Your task to perform on an android device: turn notification dots off Image 0: 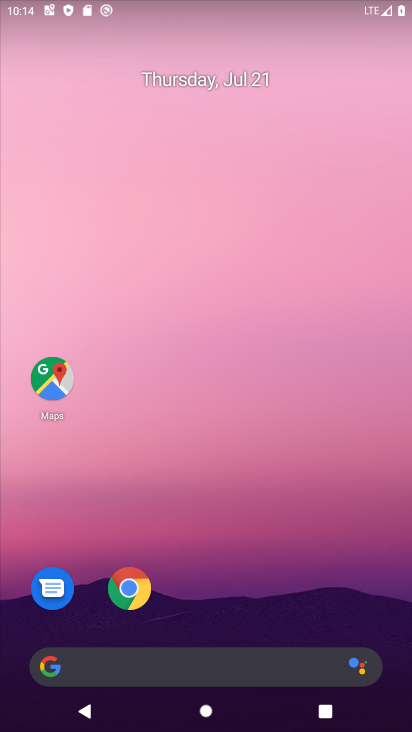
Step 0: drag from (388, 687) to (346, 125)
Your task to perform on an android device: turn notification dots off Image 1: 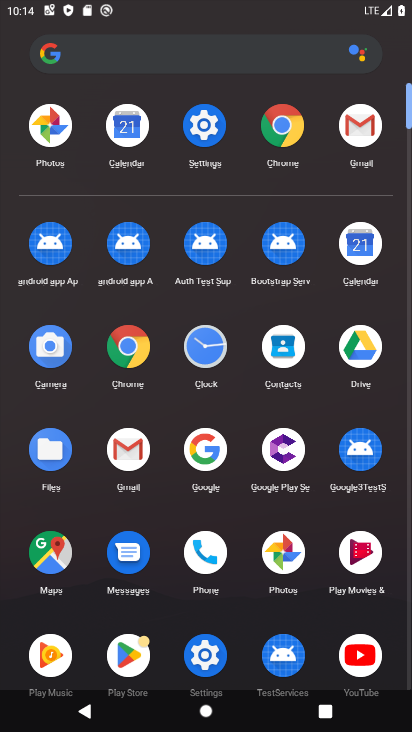
Step 1: click (204, 140)
Your task to perform on an android device: turn notification dots off Image 2: 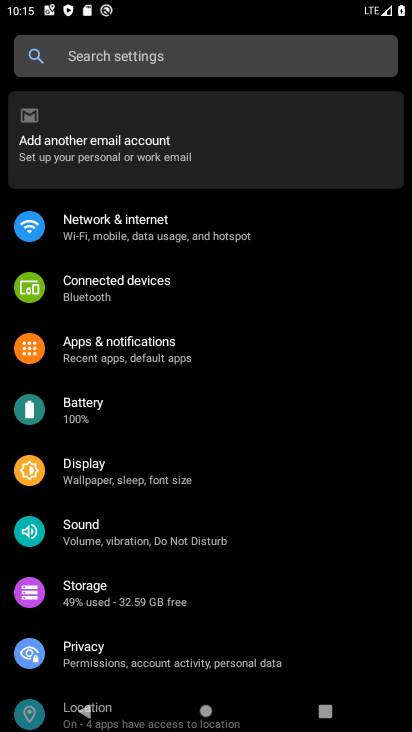
Step 2: press home button
Your task to perform on an android device: turn notification dots off Image 3: 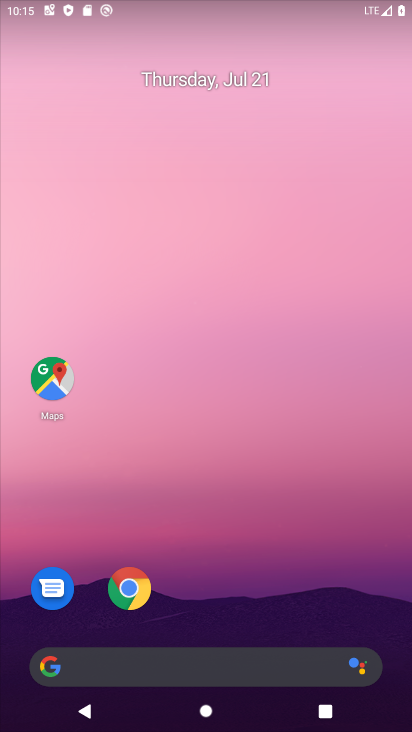
Step 3: drag from (393, 699) to (370, 5)
Your task to perform on an android device: turn notification dots off Image 4: 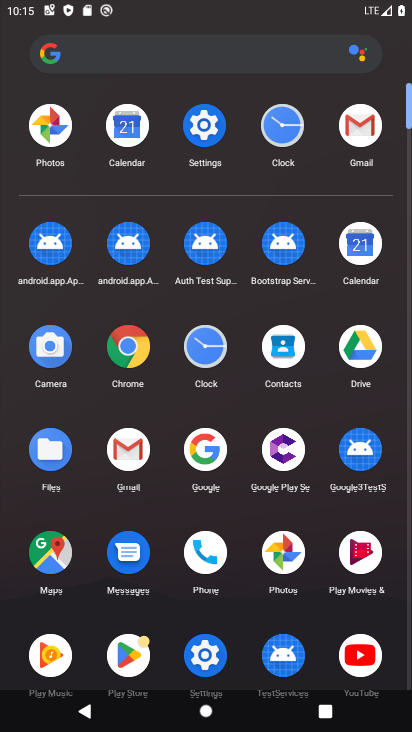
Step 4: click (201, 119)
Your task to perform on an android device: turn notification dots off Image 5: 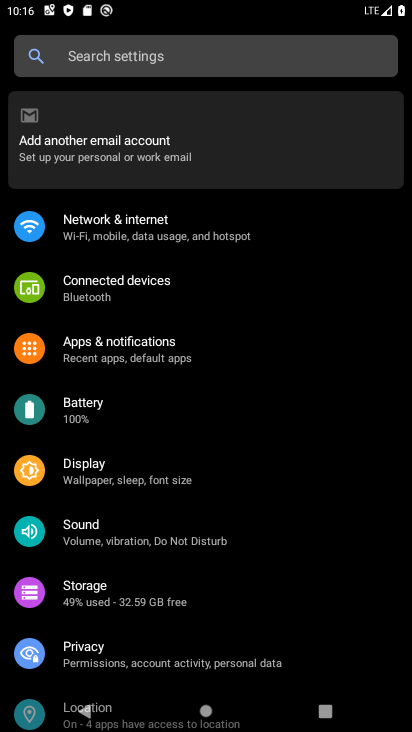
Step 5: click (120, 341)
Your task to perform on an android device: turn notification dots off Image 6: 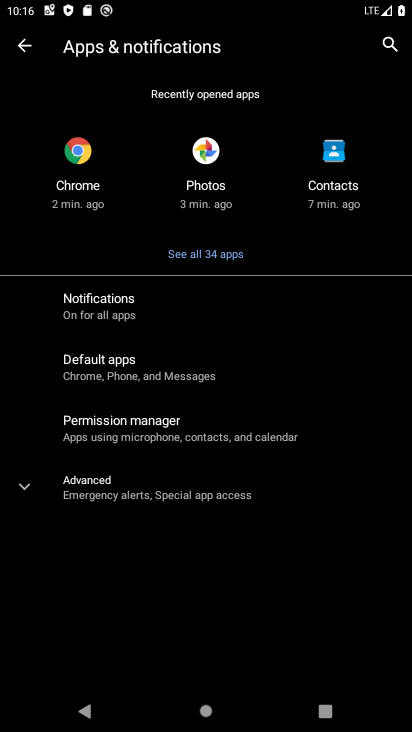
Step 6: click (97, 316)
Your task to perform on an android device: turn notification dots off Image 7: 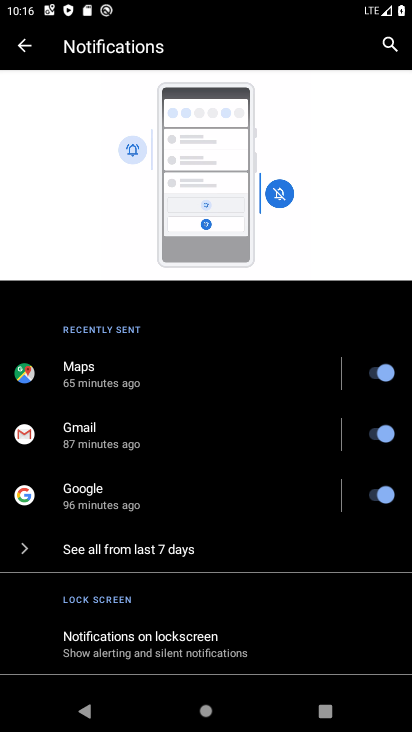
Step 7: drag from (290, 646) to (286, 343)
Your task to perform on an android device: turn notification dots off Image 8: 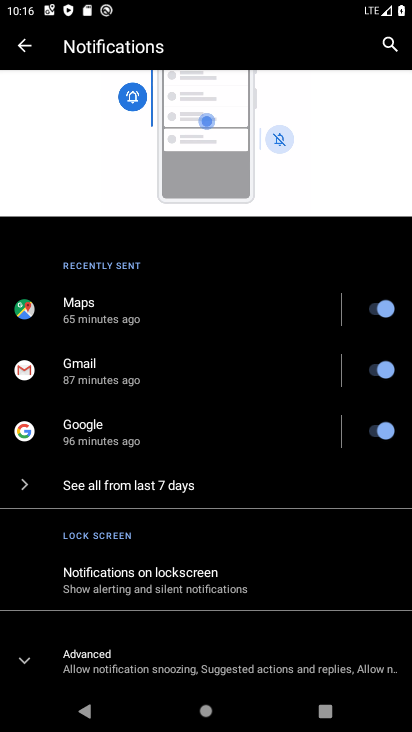
Step 8: click (20, 663)
Your task to perform on an android device: turn notification dots off Image 9: 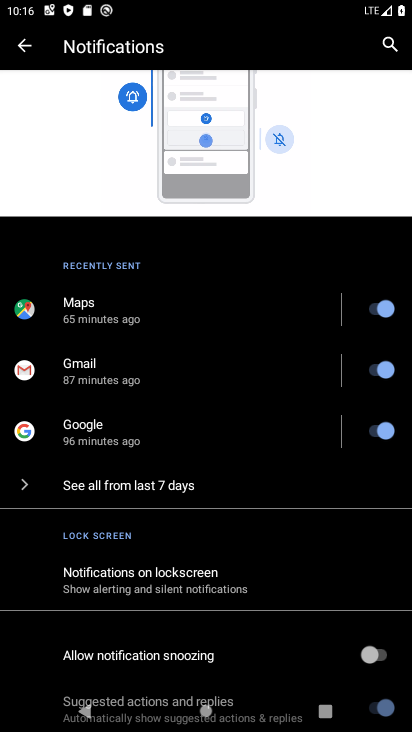
Step 9: drag from (308, 638) to (287, 326)
Your task to perform on an android device: turn notification dots off Image 10: 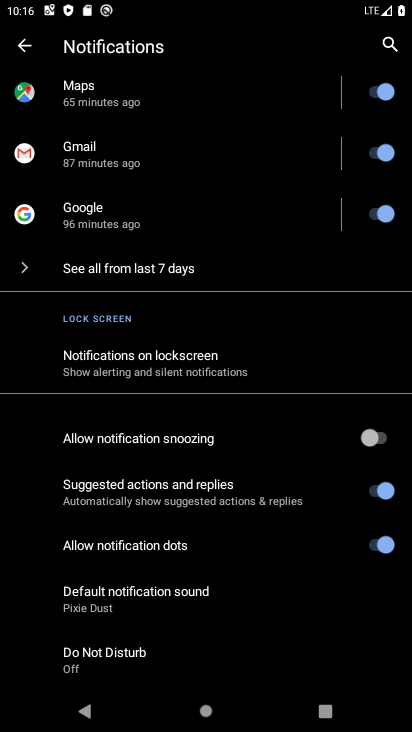
Step 10: click (379, 549)
Your task to perform on an android device: turn notification dots off Image 11: 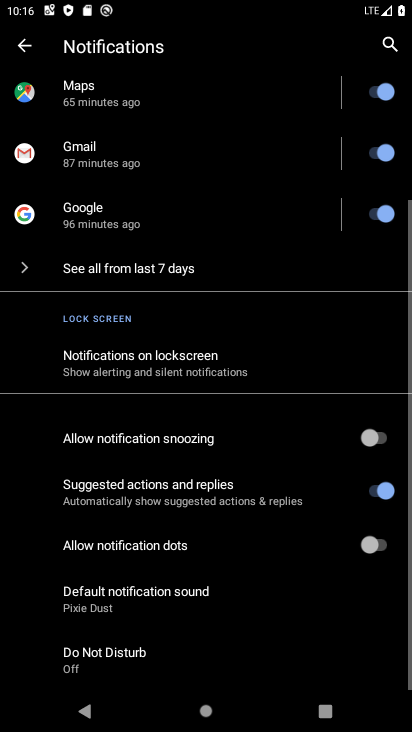
Step 11: task complete